Your task to perform on an android device: Open privacy settings Image 0: 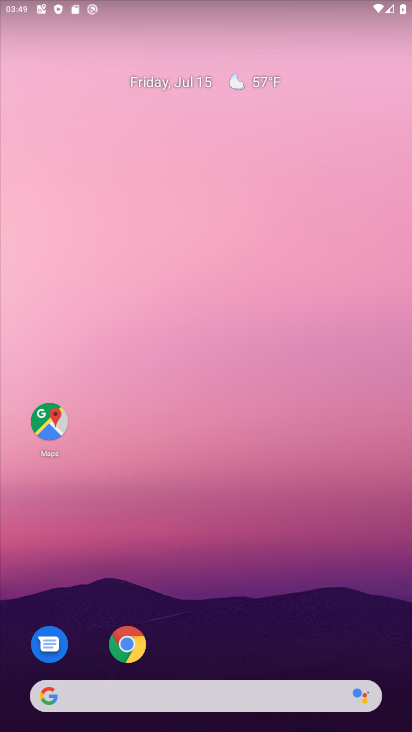
Step 0: drag from (316, 632) to (217, 180)
Your task to perform on an android device: Open privacy settings Image 1: 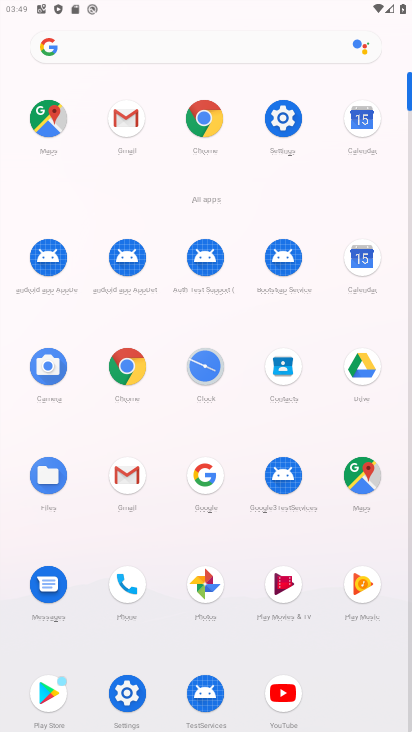
Step 1: click (300, 119)
Your task to perform on an android device: Open privacy settings Image 2: 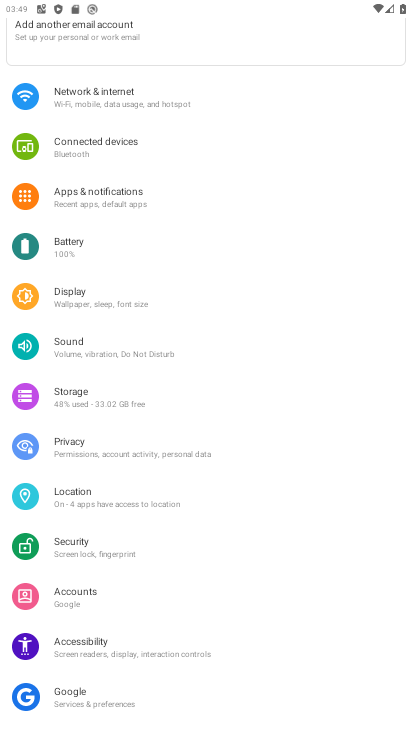
Step 2: click (121, 462)
Your task to perform on an android device: Open privacy settings Image 3: 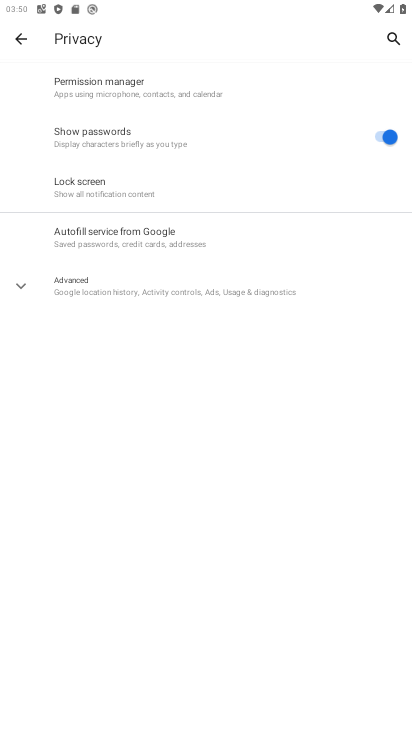
Step 3: task complete